Your task to perform on an android device: turn on location history Image 0: 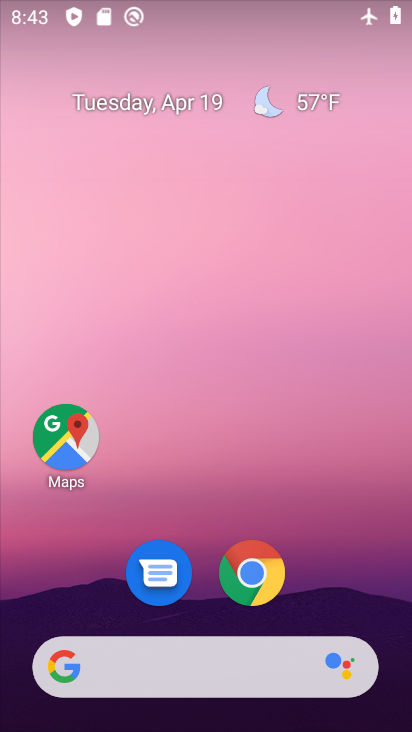
Step 0: drag from (313, 417) to (285, 140)
Your task to perform on an android device: turn on location history Image 1: 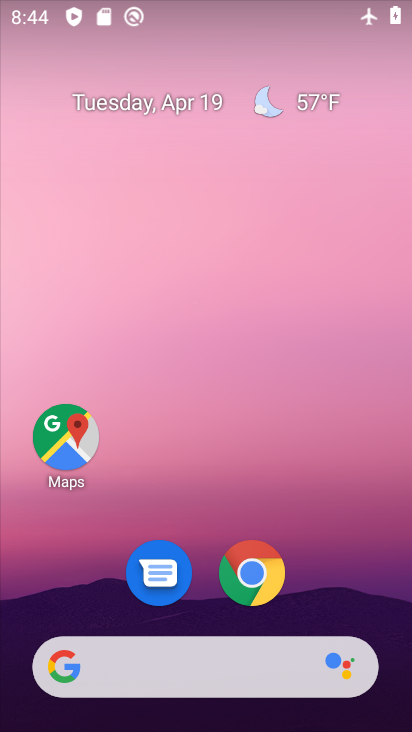
Step 1: drag from (344, 596) to (288, 46)
Your task to perform on an android device: turn on location history Image 2: 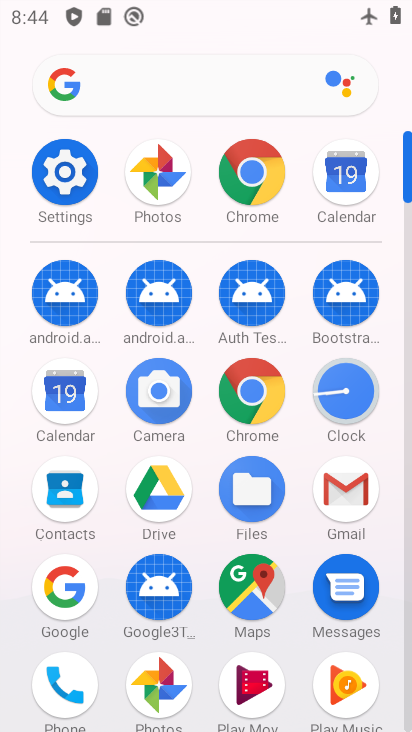
Step 2: click (50, 178)
Your task to perform on an android device: turn on location history Image 3: 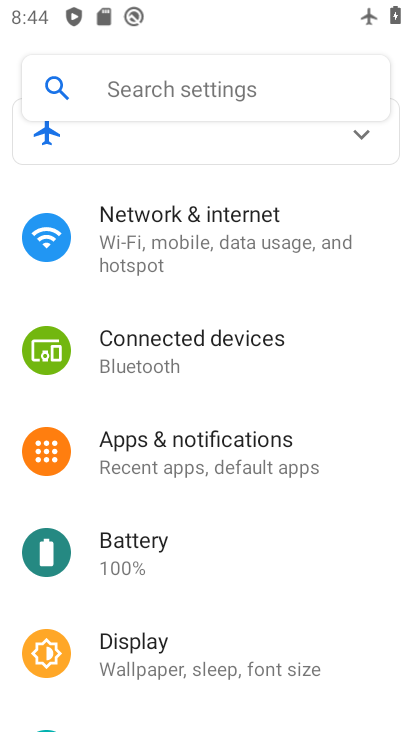
Step 3: drag from (304, 578) to (232, 125)
Your task to perform on an android device: turn on location history Image 4: 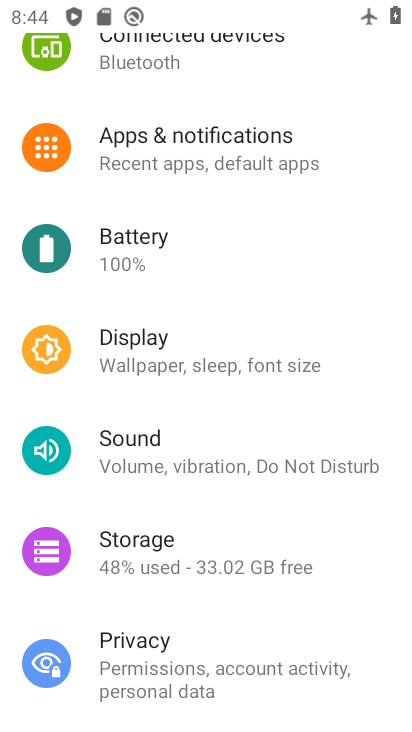
Step 4: drag from (228, 610) to (237, 234)
Your task to perform on an android device: turn on location history Image 5: 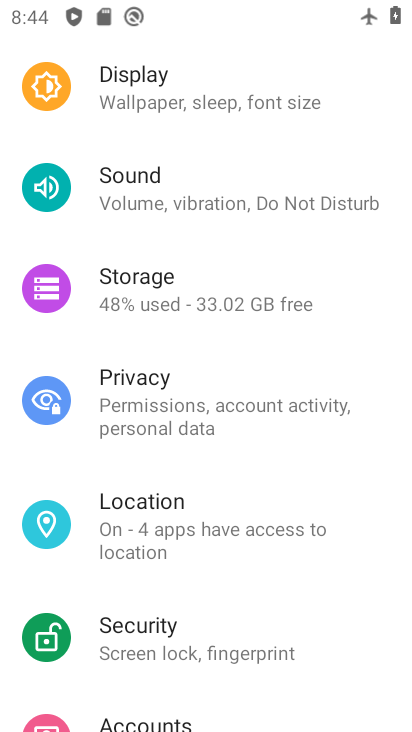
Step 5: click (168, 528)
Your task to perform on an android device: turn on location history Image 6: 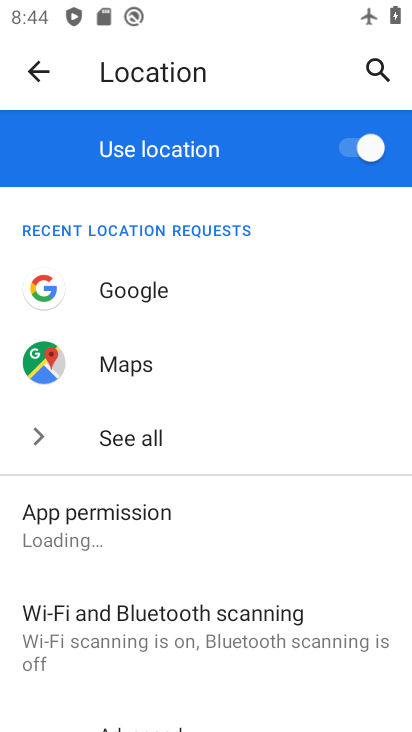
Step 6: drag from (319, 419) to (324, 223)
Your task to perform on an android device: turn on location history Image 7: 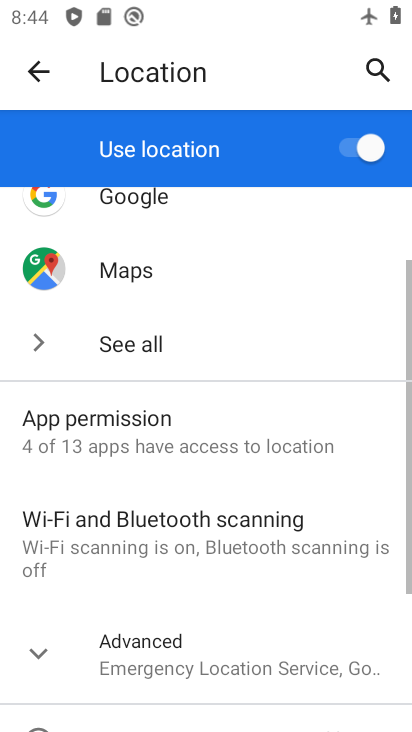
Step 7: click (250, 652)
Your task to perform on an android device: turn on location history Image 8: 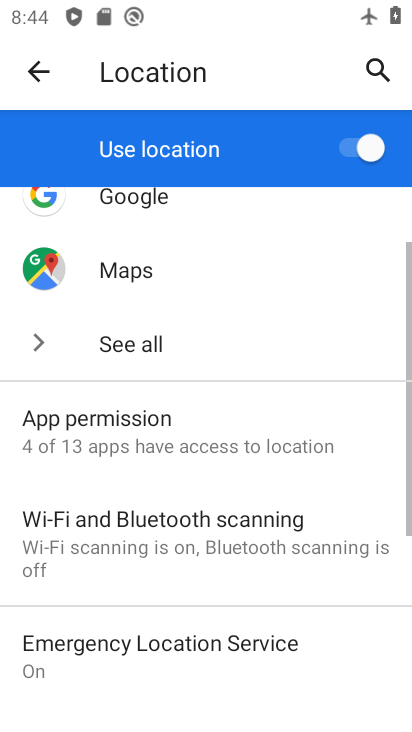
Step 8: drag from (285, 590) to (300, 200)
Your task to perform on an android device: turn on location history Image 9: 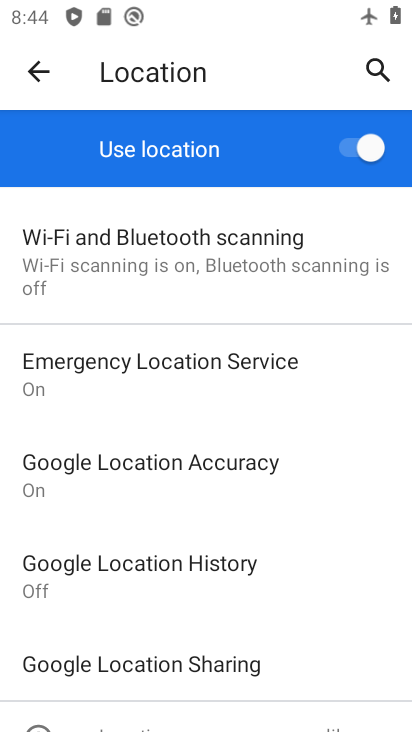
Step 9: click (197, 566)
Your task to perform on an android device: turn on location history Image 10: 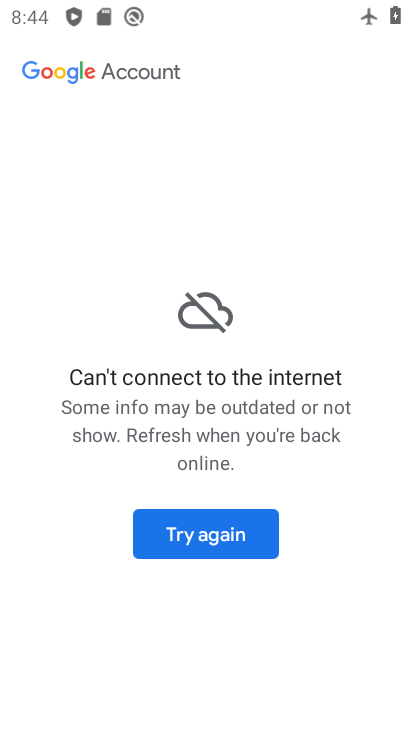
Step 10: click (221, 549)
Your task to perform on an android device: turn on location history Image 11: 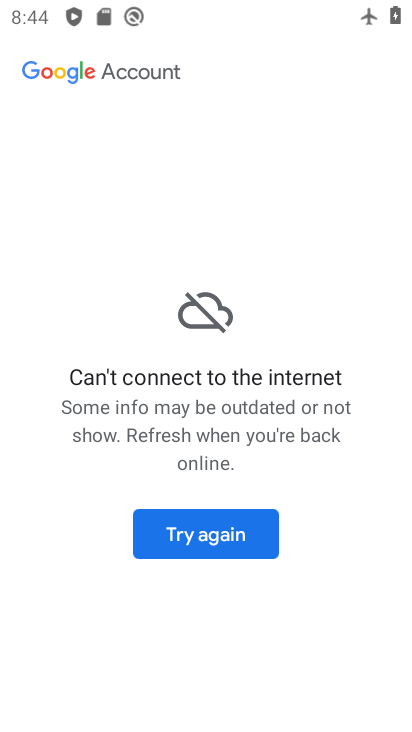
Step 11: task complete